Your task to perform on an android device: empty trash in google photos Image 0: 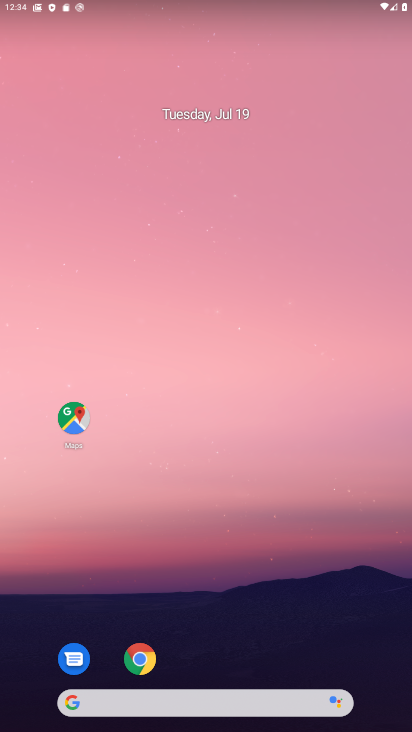
Step 0: drag from (223, 686) to (221, 249)
Your task to perform on an android device: empty trash in google photos Image 1: 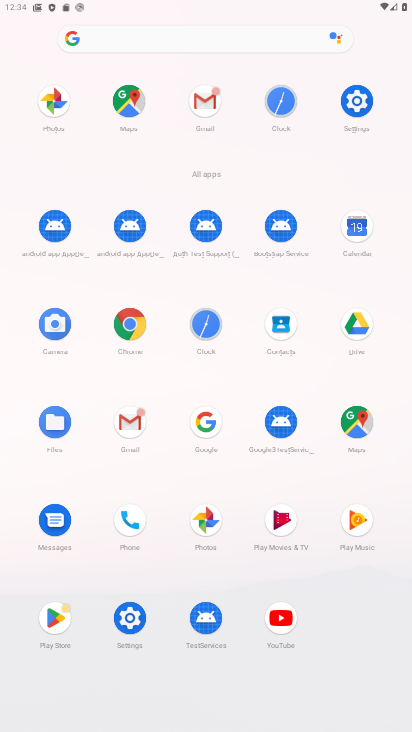
Step 1: click (209, 512)
Your task to perform on an android device: empty trash in google photos Image 2: 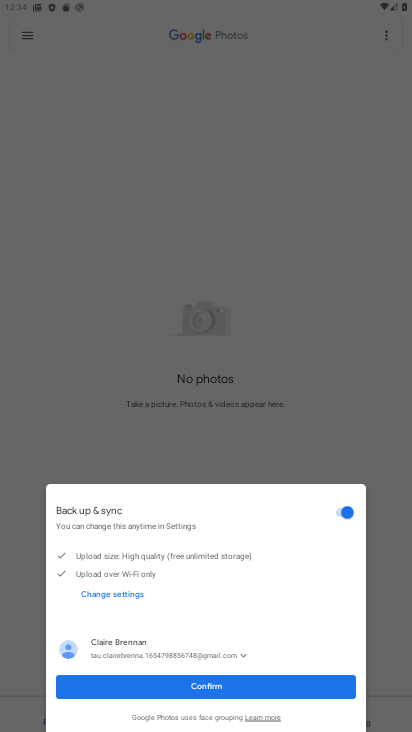
Step 2: click (210, 679)
Your task to perform on an android device: empty trash in google photos Image 3: 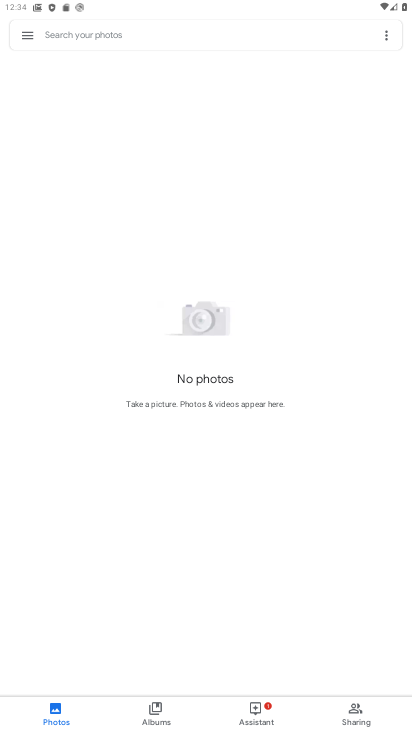
Step 3: click (25, 29)
Your task to perform on an android device: empty trash in google photos Image 4: 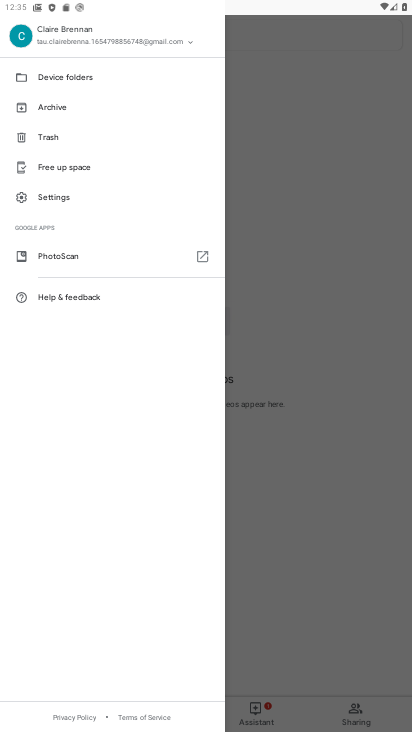
Step 4: click (85, 134)
Your task to perform on an android device: empty trash in google photos Image 5: 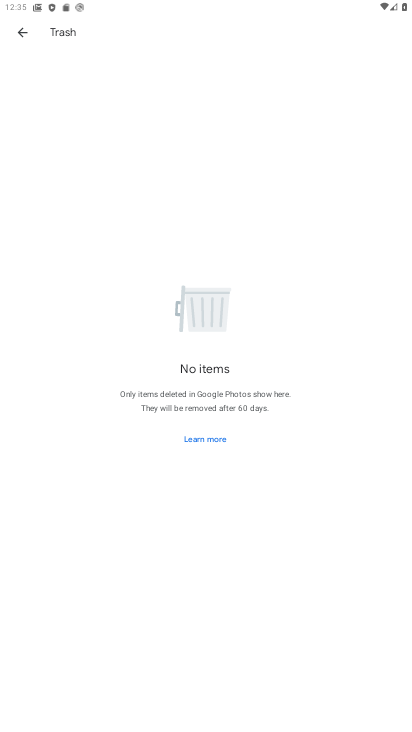
Step 5: task complete